Your task to perform on an android device: Open Google Chrome and open the bookmarks view Image 0: 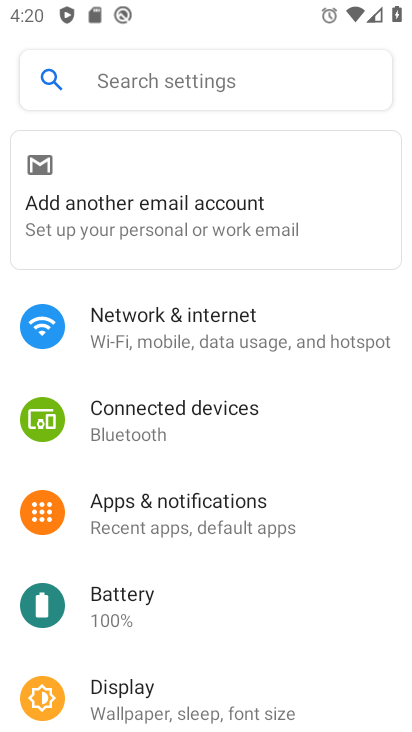
Step 0: press home button
Your task to perform on an android device: Open Google Chrome and open the bookmarks view Image 1: 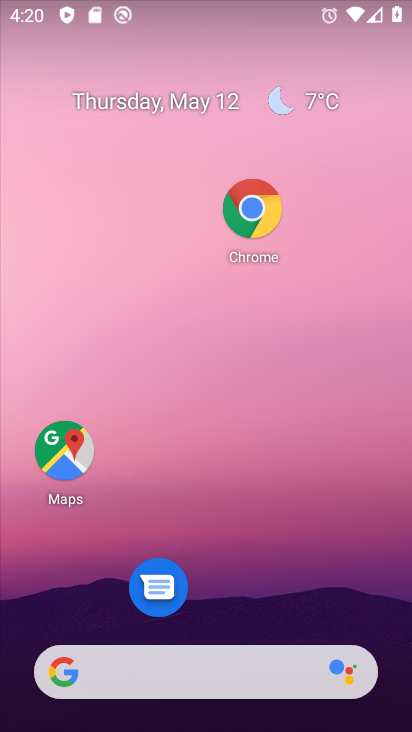
Step 1: click (245, 256)
Your task to perform on an android device: Open Google Chrome and open the bookmarks view Image 2: 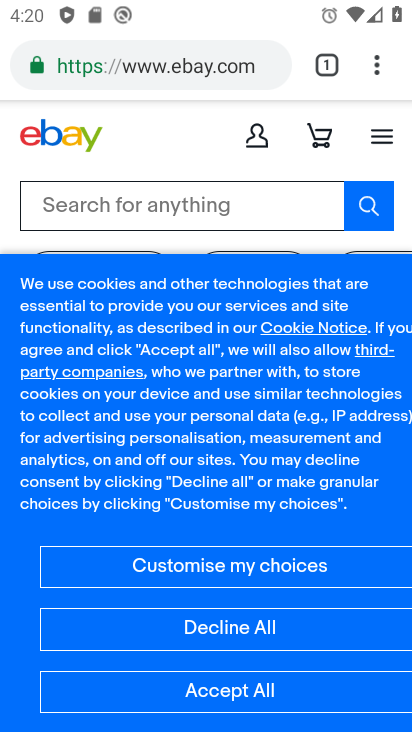
Step 2: click (377, 71)
Your task to perform on an android device: Open Google Chrome and open the bookmarks view Image 3: 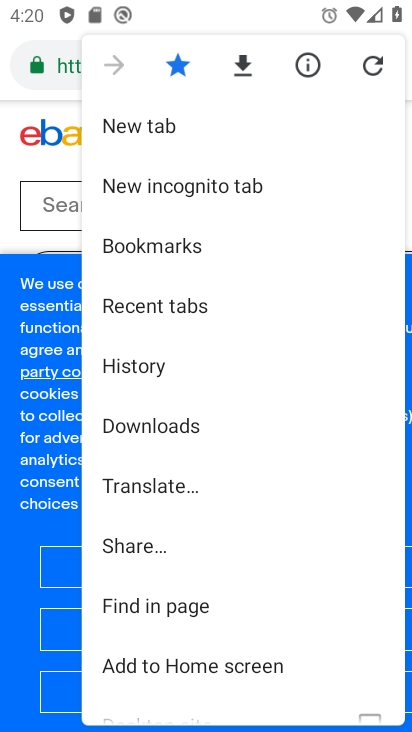
Step 3: click (164, 248)
Your task to perform on an android device: Open Google Chrome and open the bookmarks view Image 4: 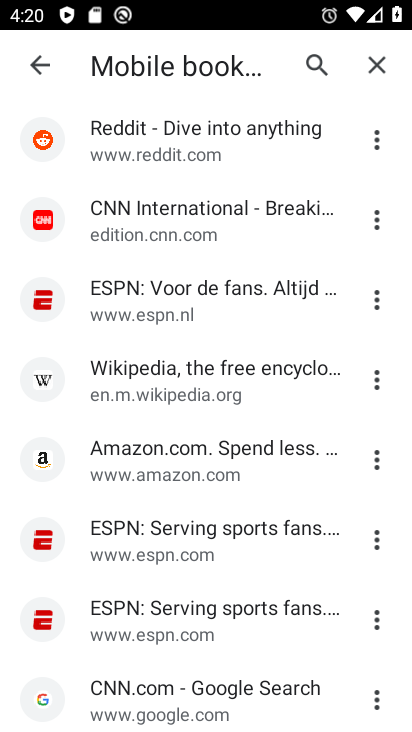
Step 4: task complete